Your task to perform on an android device: change timer sound Image 0: 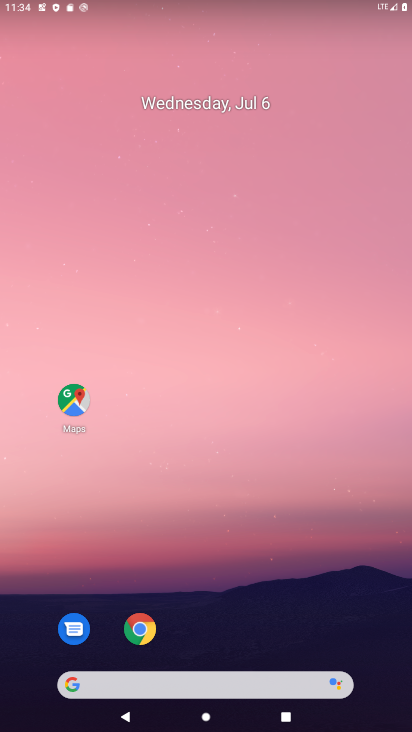
Step 0: press home button
Your task to perform on an android device: change timer sound Image 1: 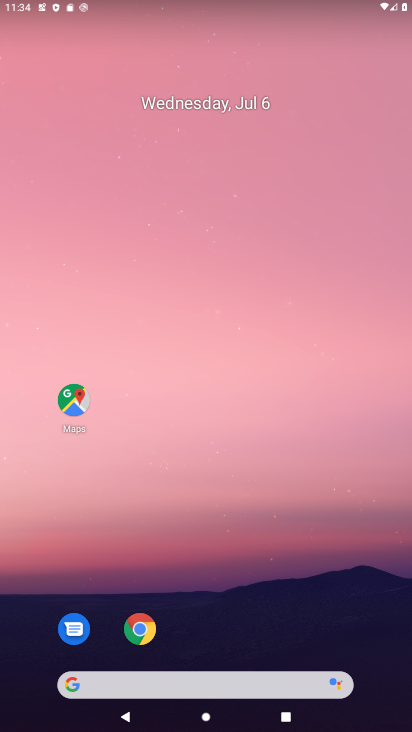
Step 1: drag from (230, 539) to (230, 91)
Your task to perform on an android device: change timer sound Image 2: 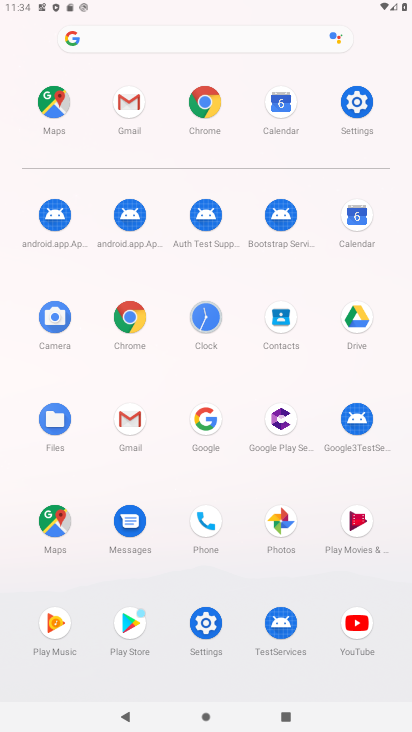
Step 2: click (215, 313)
Your task to perform on an android device: change timer sound Image 3: 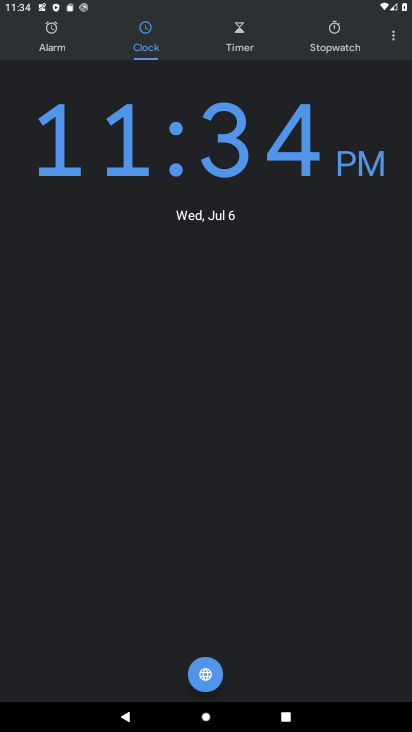
Step 3: click (394, 32)
Your task to perform on an android device: change timer sound Image 4: 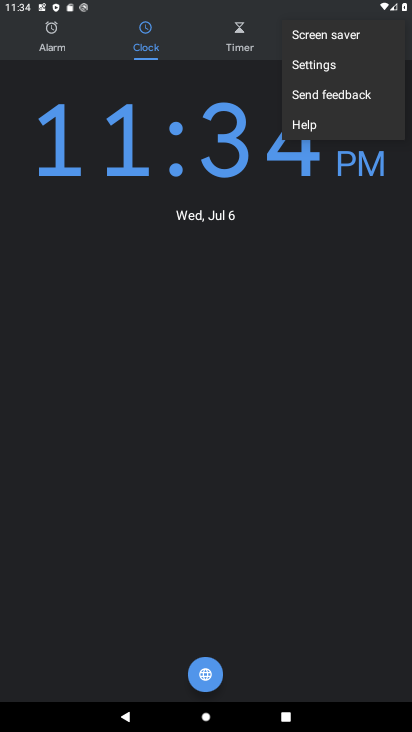
Step 4: click (316, 60)
Your task to perform on an android device: change timer sound Image 5: 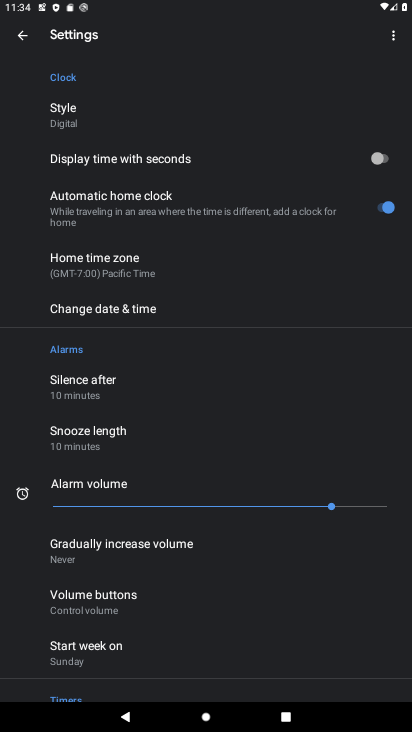
Step 5: drag from (193, 632) to (225, 268)
Your task to perform on an android device: change timer sound Image 6: 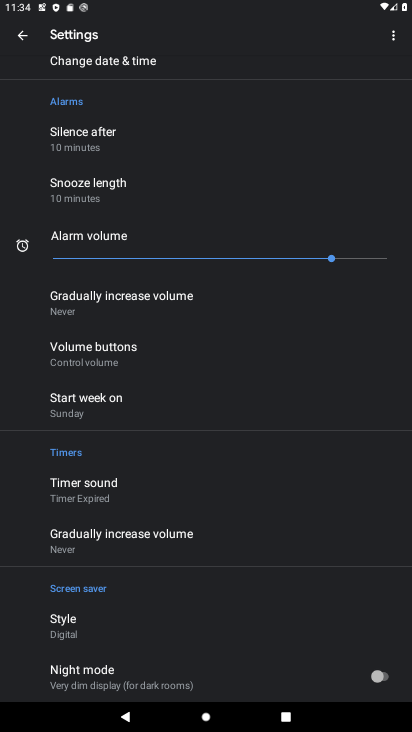
Step 6: drag from (189, 399) to (189, 196)
Your task to perform on an android device: change timer sound Image 7: 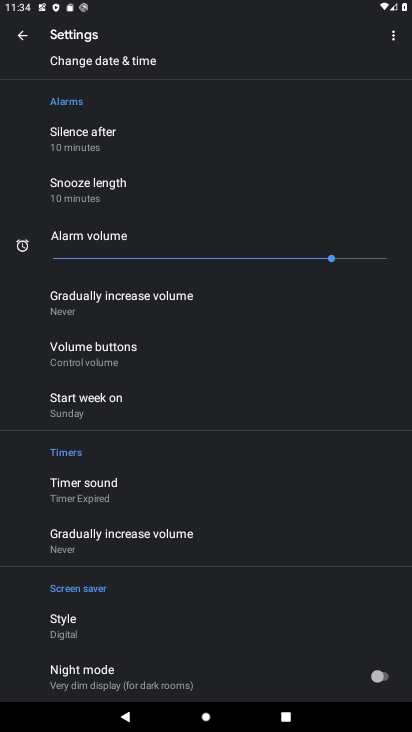
Step 7: drag from (177, 590) to (199, 312)
Your task to perform on an android device: change timer sound Image 8: 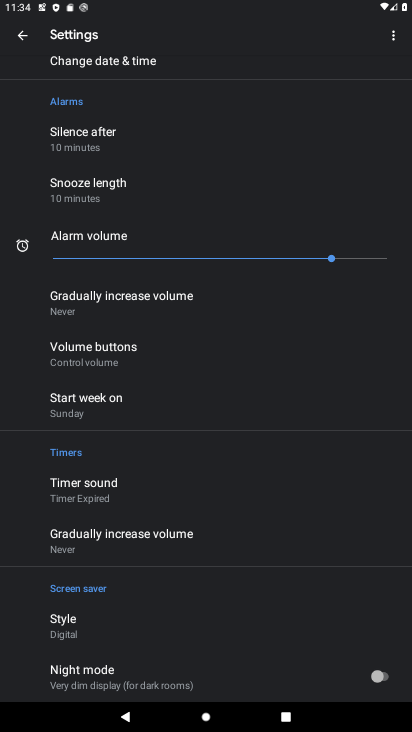
Step 8: drag from (178, 385) to (235, 303)
Your task to perform on an android device: change timer sound Image 9: 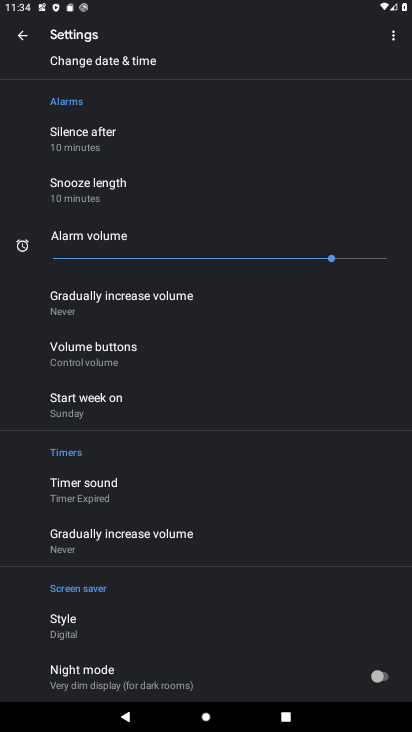
Step 9: click (106, 487)
Your task to perform on an android device: change timer sound Image 10: 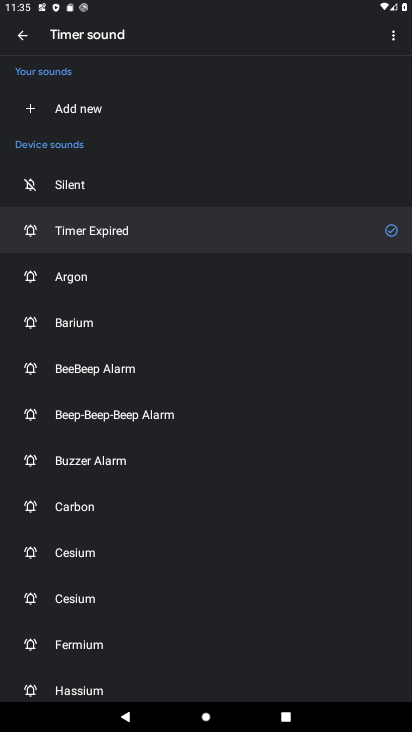
Step 10: click (122, 337)
Your task to perform on an android device: change timer sound Image 11: 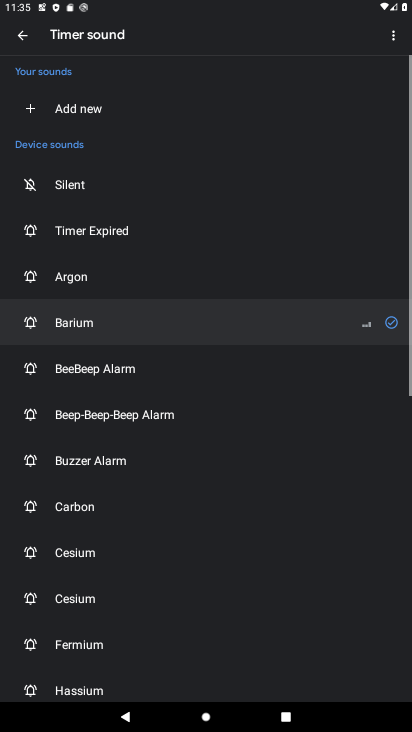
Step 11: task complete